Your task to perform on an android device: Search for sushi restaurants on Maps Image 0: 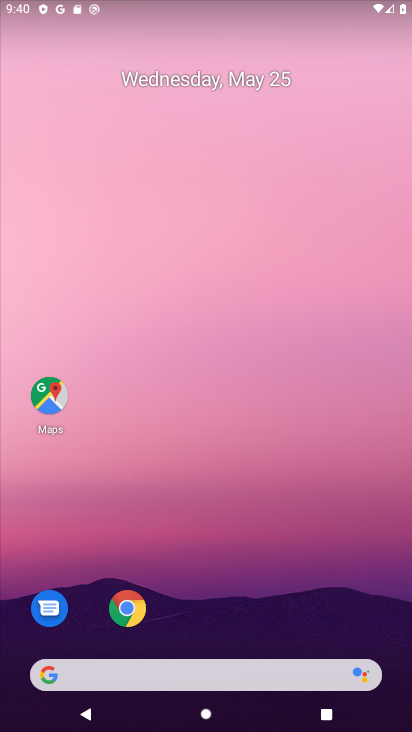
Step 0: click (47, 394)
Your task to perform on an android device: Search for sushi restaurants on Maps Image 1: 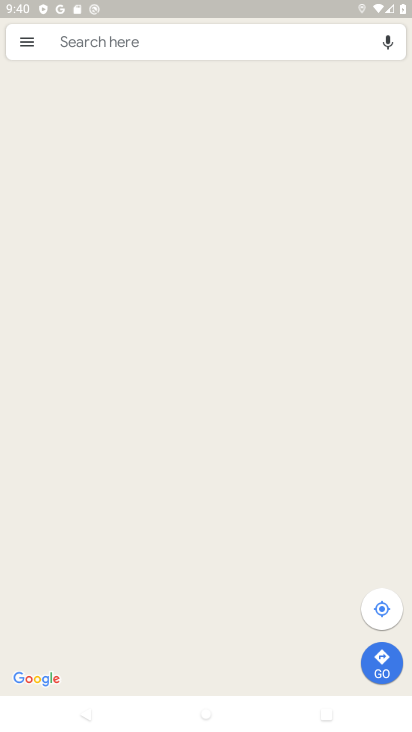
Step 1: click (78, 50)
Your task to perform on an android device: Search for sushi restaurants on Maps Image 2: 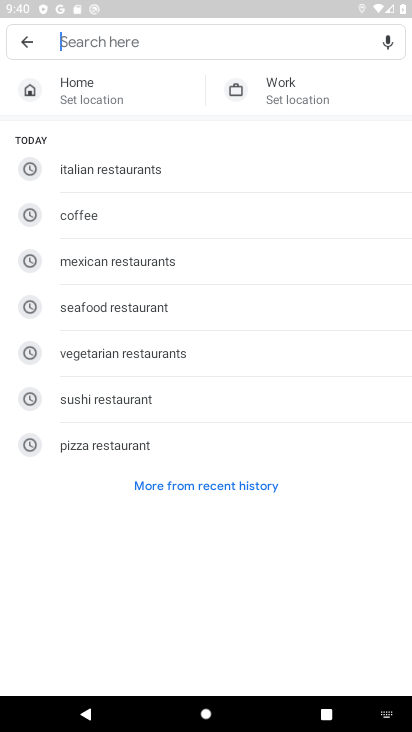
Step 2: type "sushi restaurant "
Your task to perform on an android device: Search for sushi restaurants on Maps Image 3: 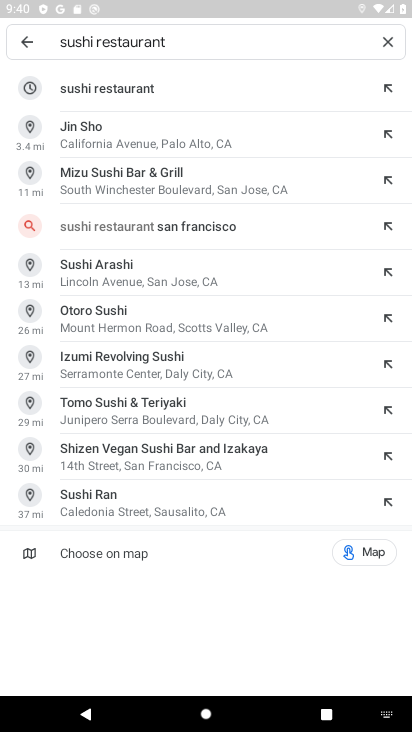
Step 3: click (84, 87)
Your task to perform on an android device: Search for sushi restaurants on Maps Image 4: 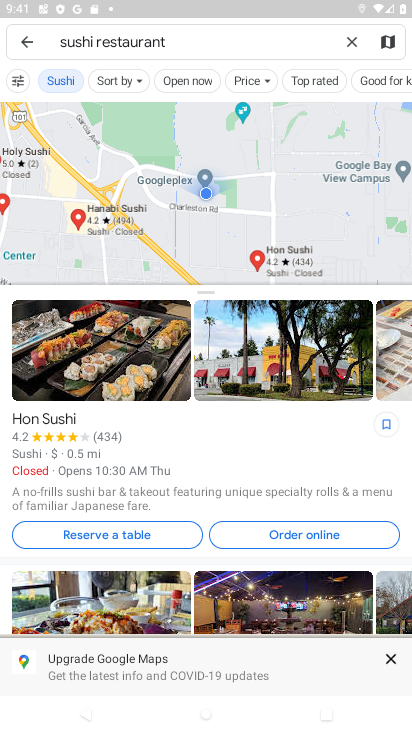
Step 4: task complete